Your task to perform on an android device: Open settings on Google Maps Image 0: 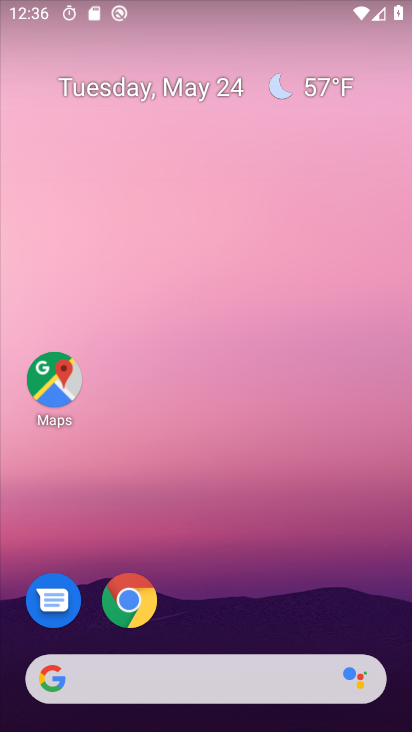
Step 0: click (58, 383)
Your task to perform on an android device: Open settings on Google Maps Image 1: 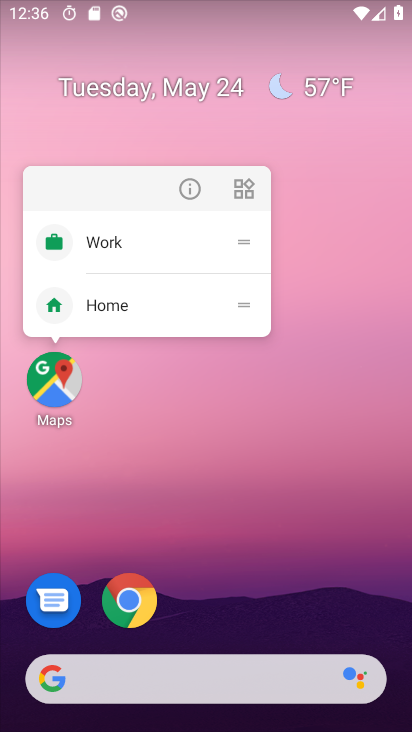
Step 1: click (43, 382)
Your task to perform on an android device: Open settings on Google Maps Image 2: 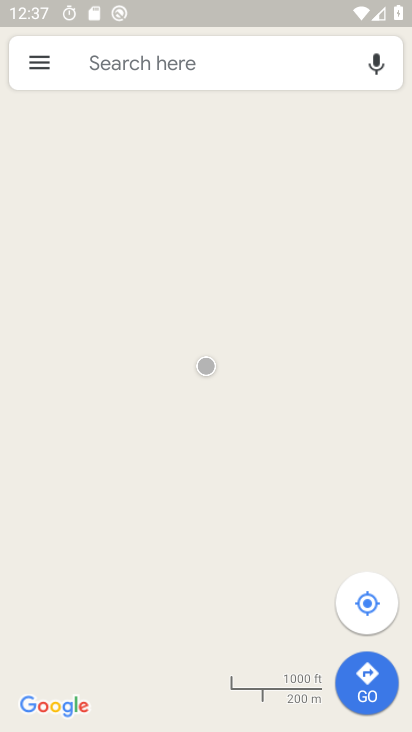
Step 2: task complete